Your task to perform on an android device: open a bookmark in the chrome app Image 0: 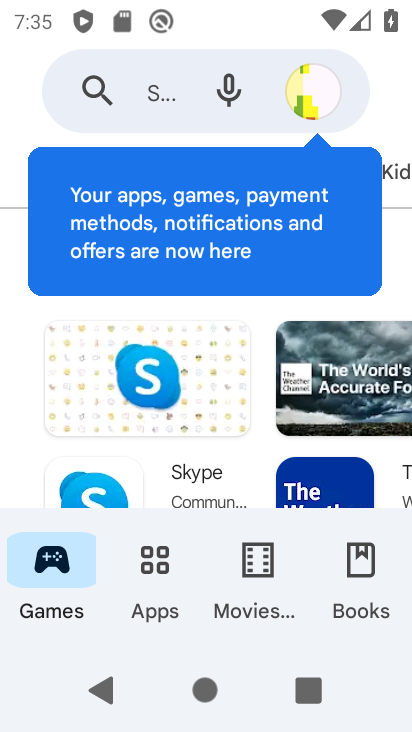
Step 0: press home button
Your task to perform on an android device: open a bookmark in the chrome app Image 1: 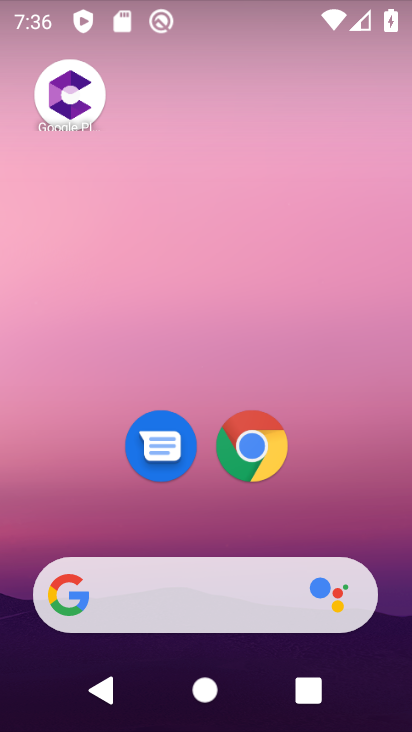
Step 1: click (259, 432)
Your task to perform on an android device: open a bookmark in the chrome app Image 2: 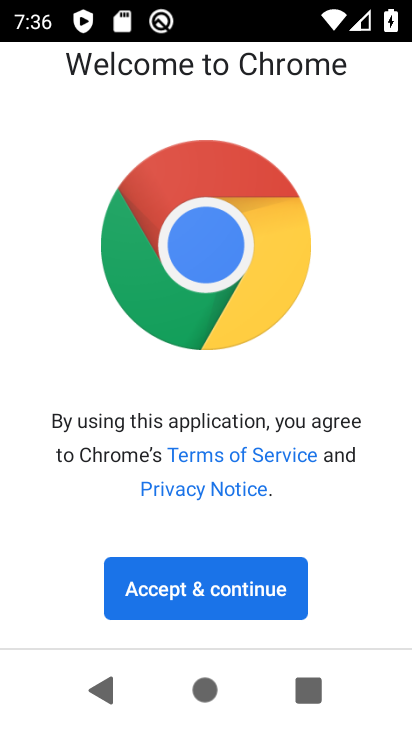
Step 2: click (201, 585)
Your task to perform on an android device: open a bookmark in the chrome app Image 3: 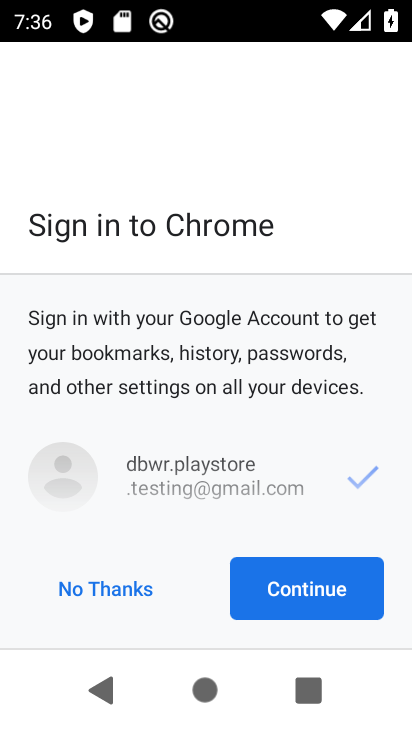
Step 3: click (100, 587)
Your task to perform on an android device: open a bookmark in the chrome app Image 4: 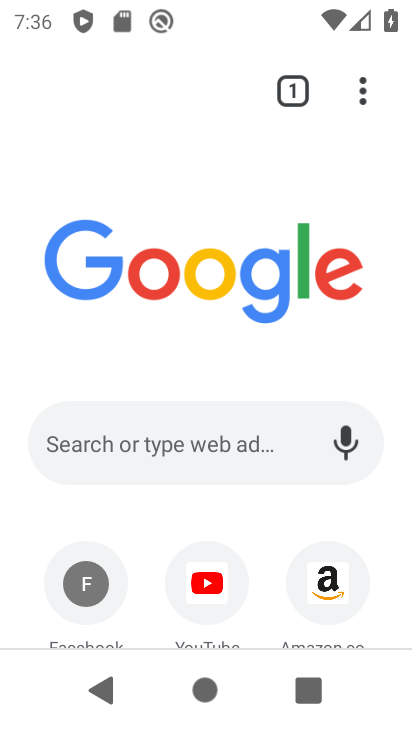
Step 4: click (366, 93)
Your task to perform on an android device: open a bookmark in the chrome app Image 5: 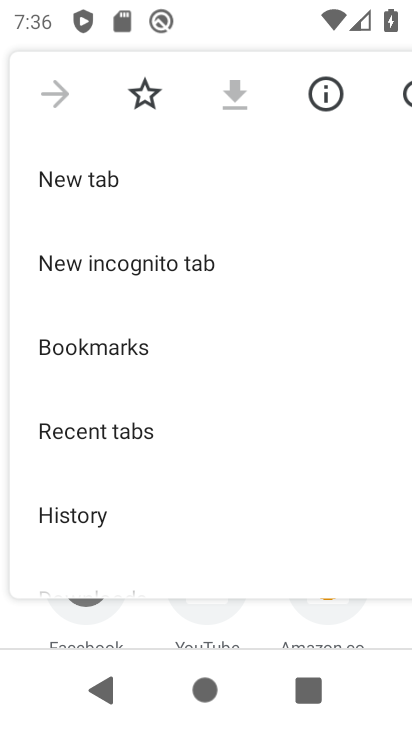
Step 5: click (105, 347)
Your task to perform on an android device: open a bookmark in the chrome app Image 6: 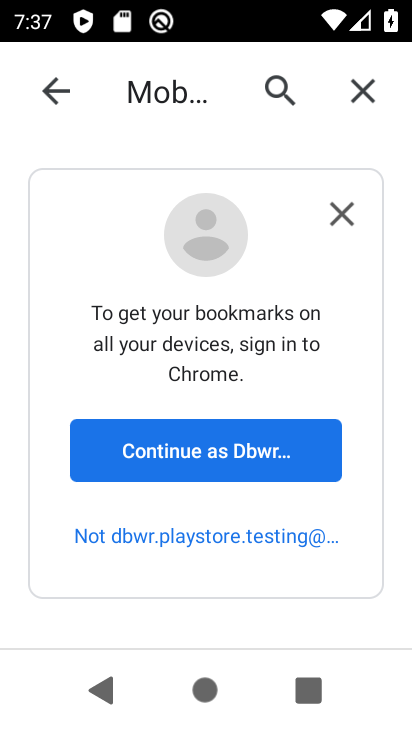
Step 6: click (162, 455)
Your task to perform on an android device: open a bookmark in the chrome app Image 7: 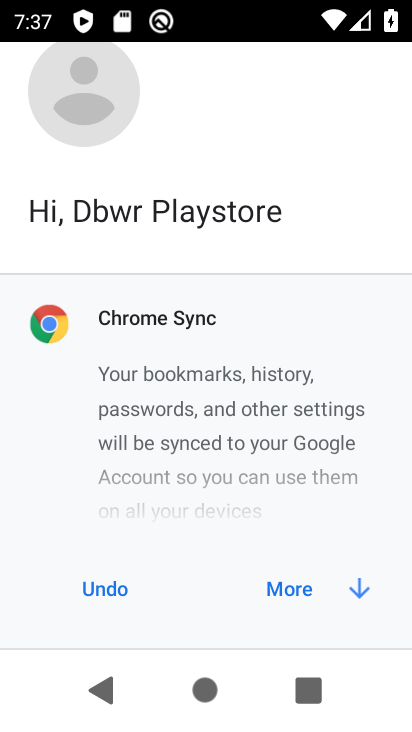
Step 7: click (292, 590)
Your task to perform on an android device: open a bookmark in the chrome app Image 8: 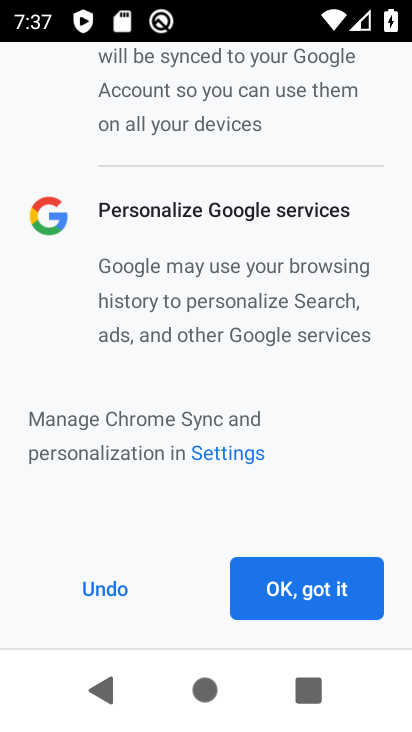
Step 8: click (292, 590)
Your task to perform on an android device: open a bookmark in the chrome app Image 9: 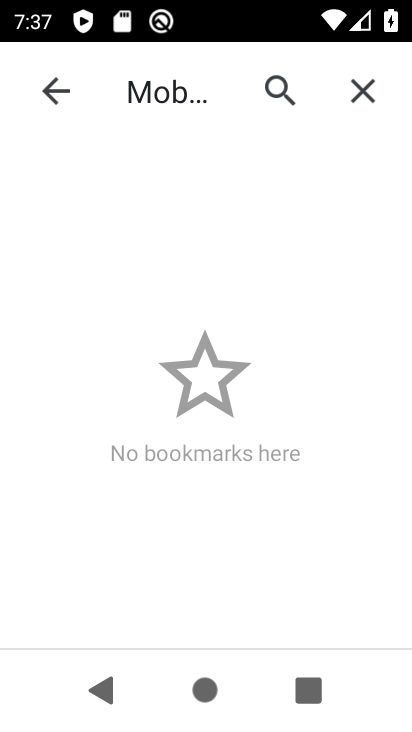
Step 9: drag from (219, 262) to (212, 450)
Your task to perform on an android device: open a bookmark in the chrome app Image 10: 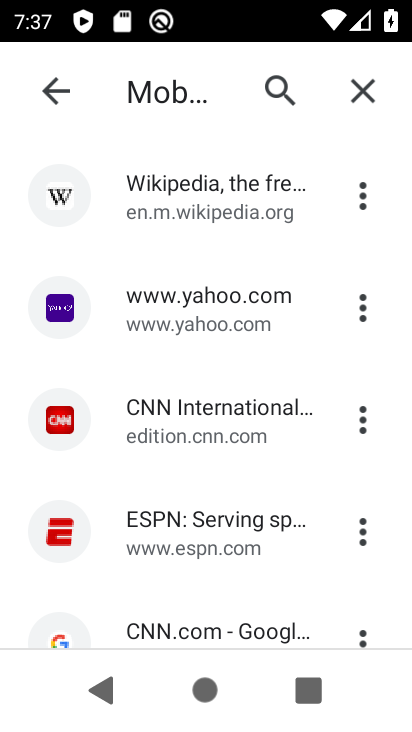
Step 10: click (158, 439)
Your task to perform on an android device: open a bookmark in the chrome app Image 11: 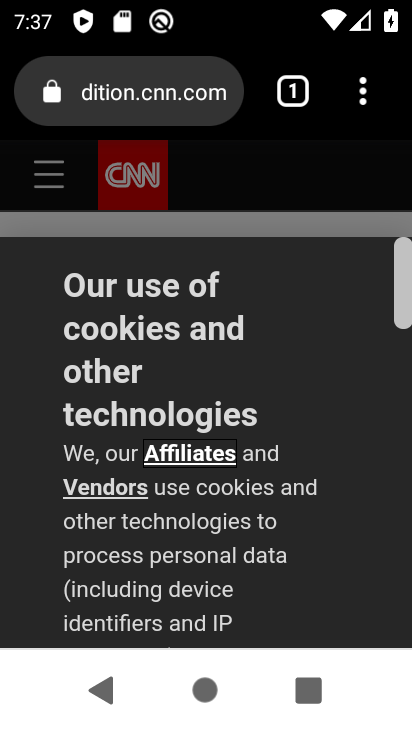
Step 11: task complete